Your task to perform on an android device: open chrome and create a bookmark for the current page Image 0: 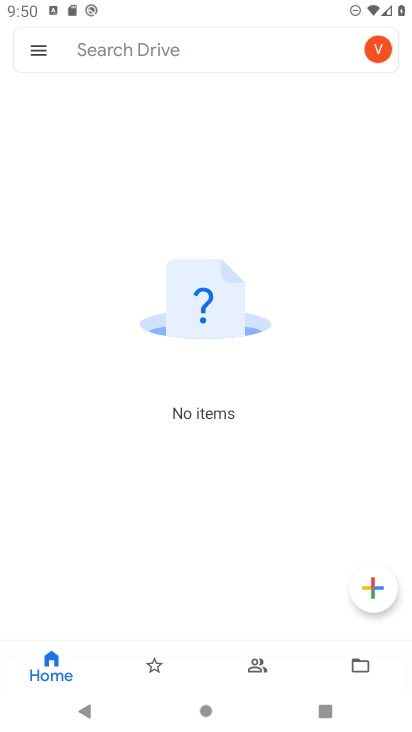
Step 0: press home button
Your task to perform on an android device: open chrome and create a bookmark for the current page Image 1: 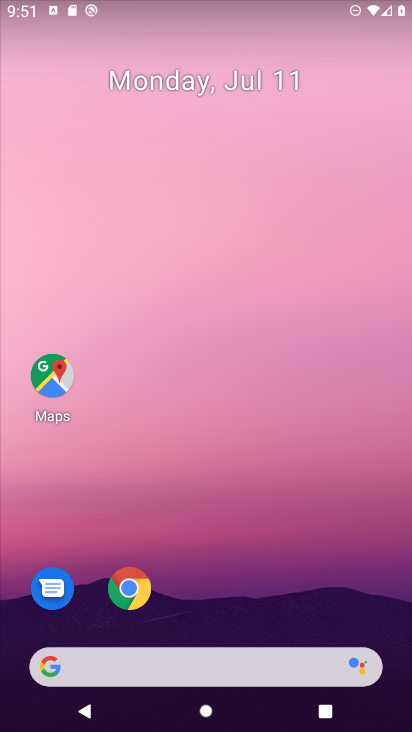
Step 1: drag from (361, 657) to (220, 124)
Your task to perform on an android device: open chrome and create a bookmark for the current page Image 2: 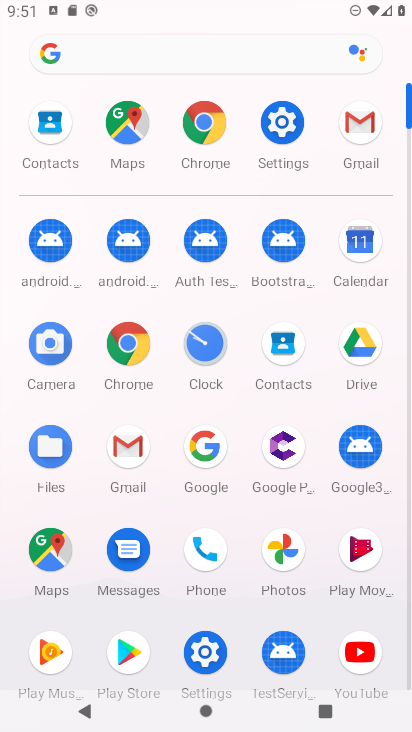
Step 2: click (203, 128)
Your task to perform on an android device: open chrome and create a bookmark for the current page Image 3: 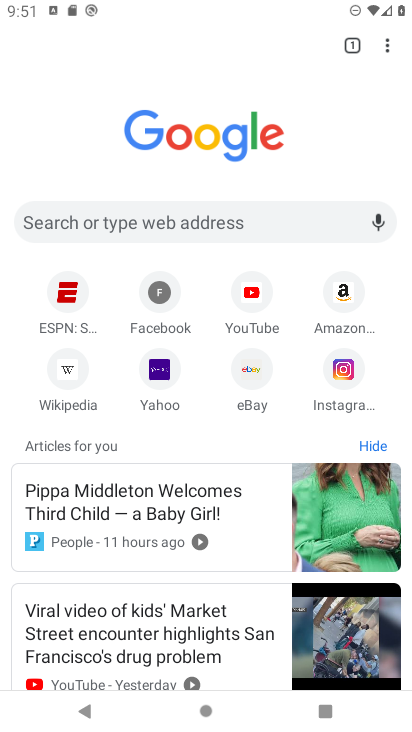
Step 3: click (386, 54)
Your task to perform on an android device: open chrome and create a bookmark for the current page Image 4: 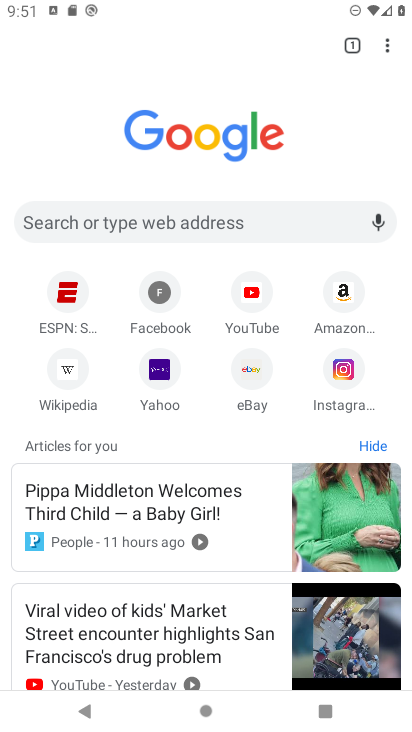
Step 4: click (388, 50)
Your task to perform on an android device: open chrome and create a bookmark for the current page Image 5: 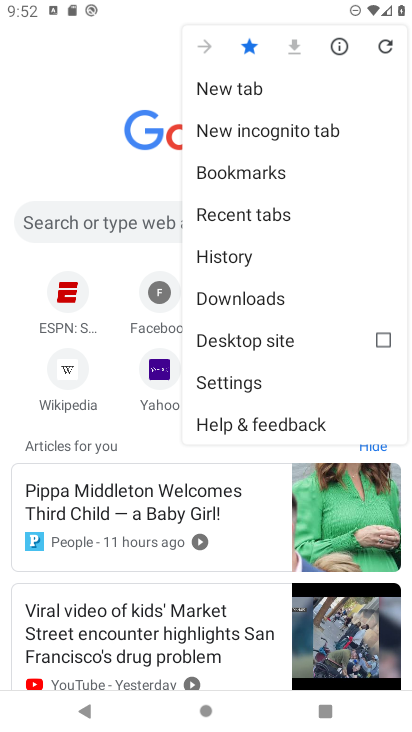
Step 5: task complete